Your task to perform on an android device: open app "Grab" Image 0: 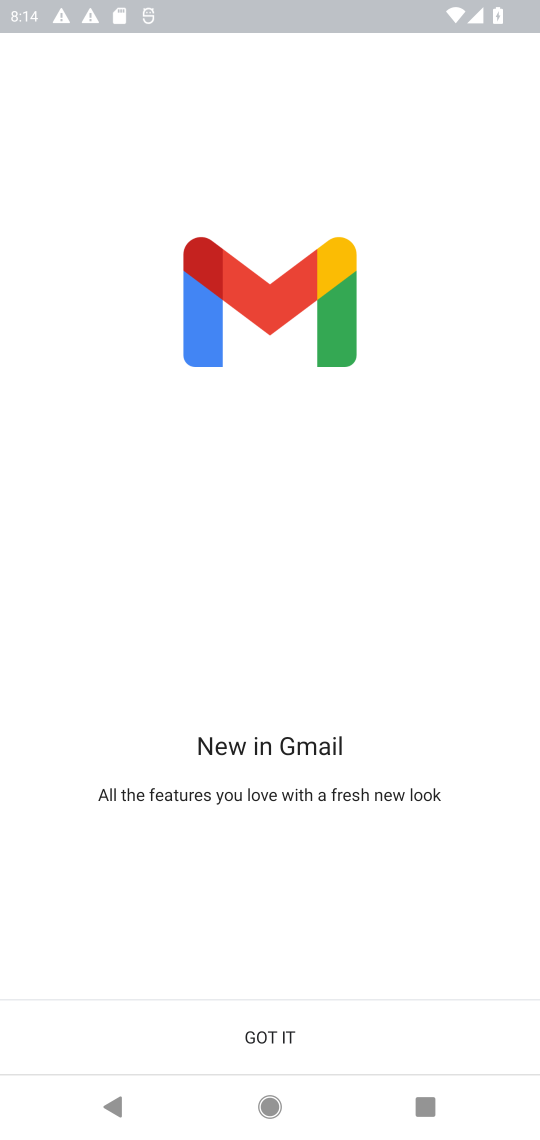
Step 0: press home button
Your task to perform on an android device: open app "Grab" Image 1: 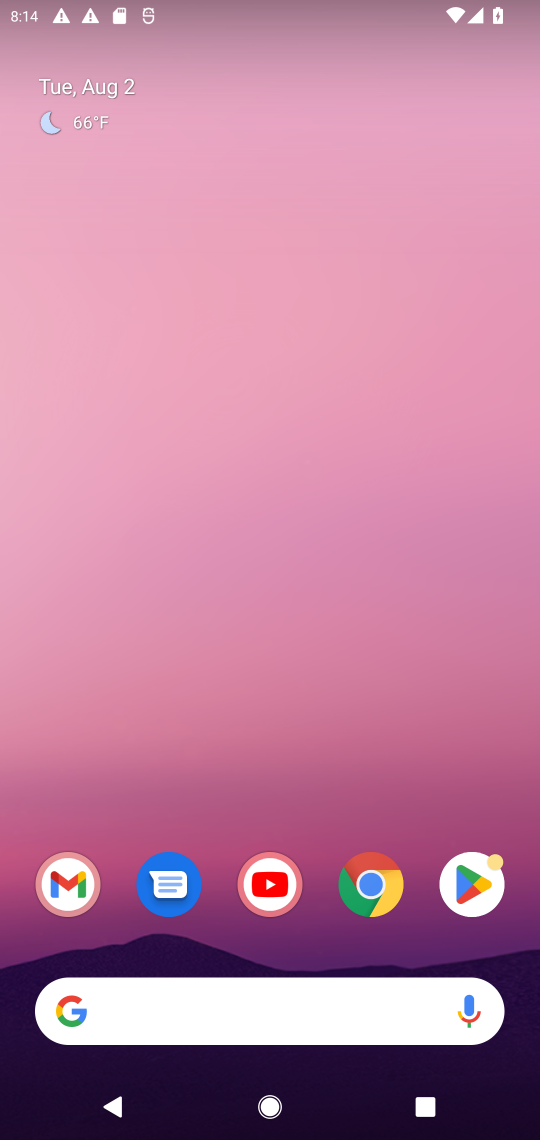
Step 1: click (474, 866)
Your task to perform on an android device: open app "Grab" Image 2: 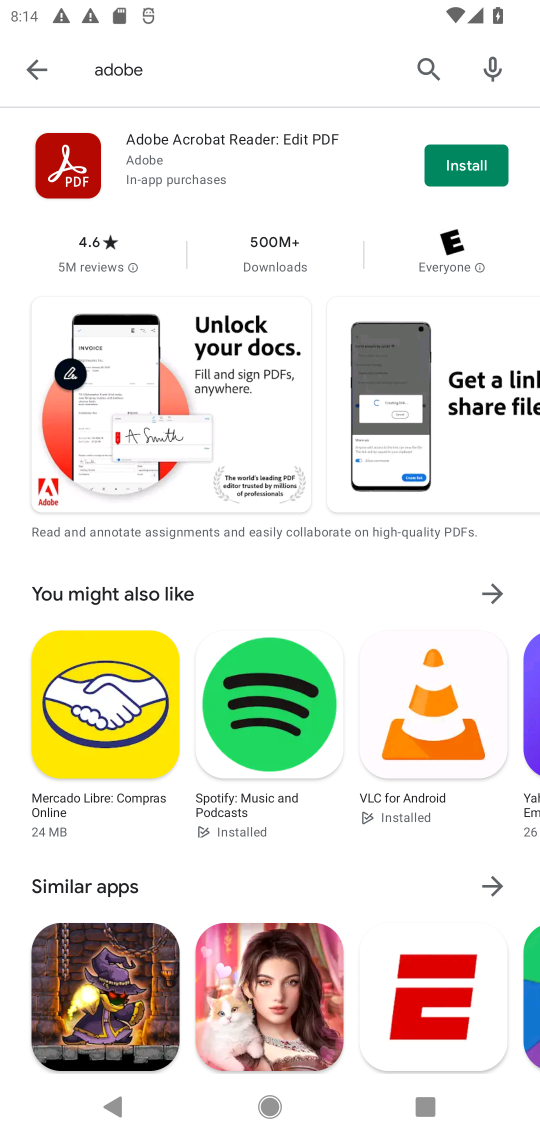
Step 2: click (423, 76)
Your task to perform on an android device: open app "Grab" Image 3: 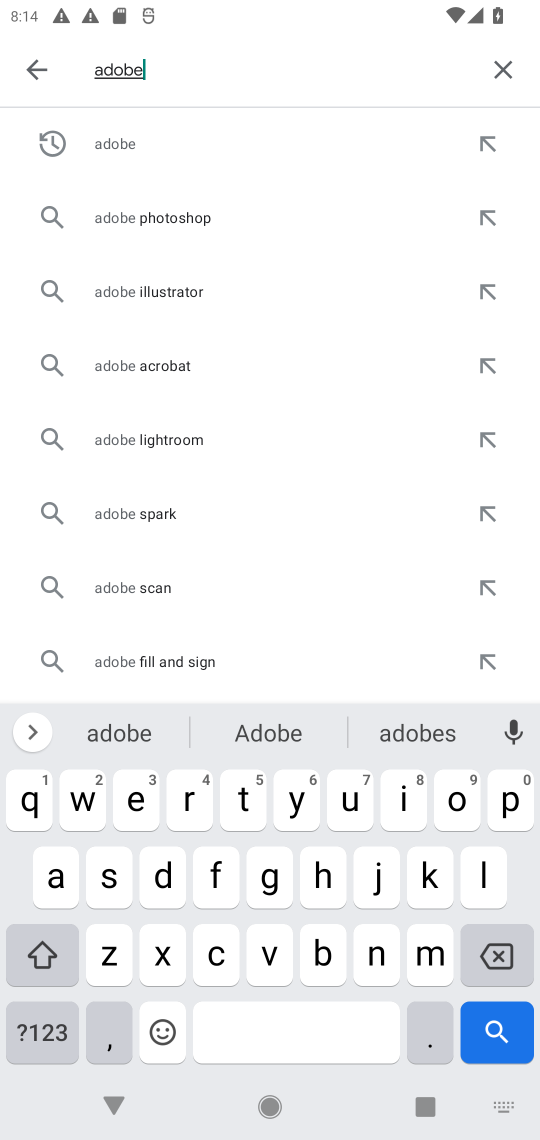
Step 3: click (507, 60)
Your task to perform on an android device: open app "Grab" Image 4: 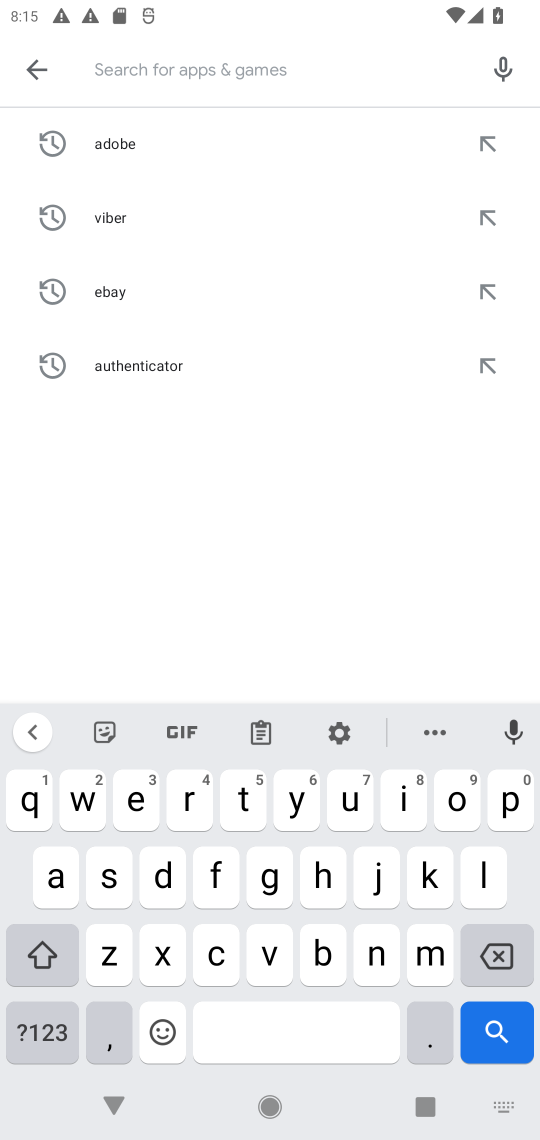
Step 4: click (267, 870)
Your task to perform on an android device: open app "Grab" Image 5: 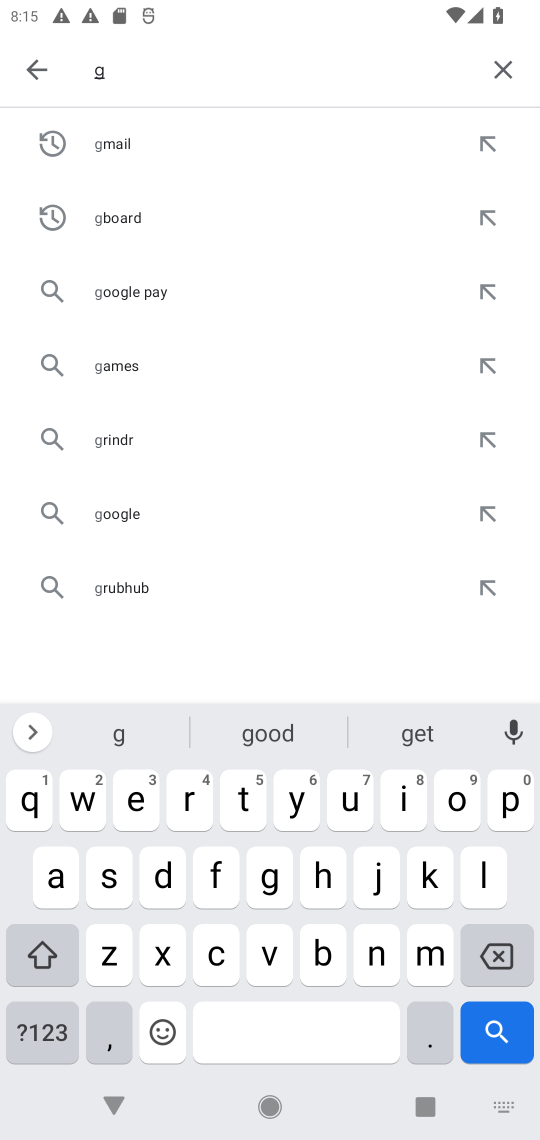
Step 5: click (184, 791)
Your task to perform on an android device: open app "Grab" Image 6: 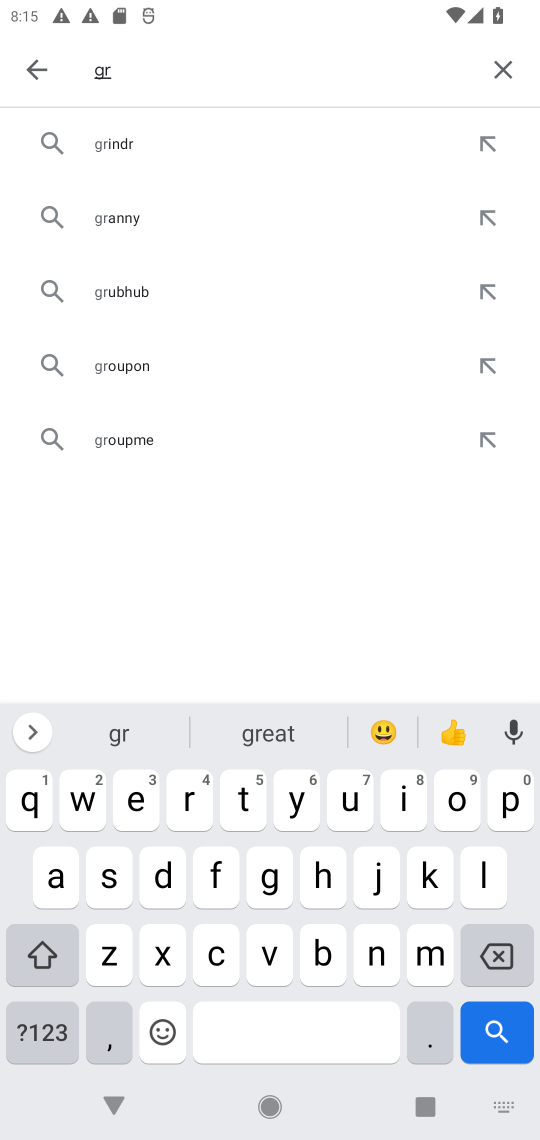
Step 6: click (49, 879)
Your task to perform on an android device: open app "Grab" Image 7: 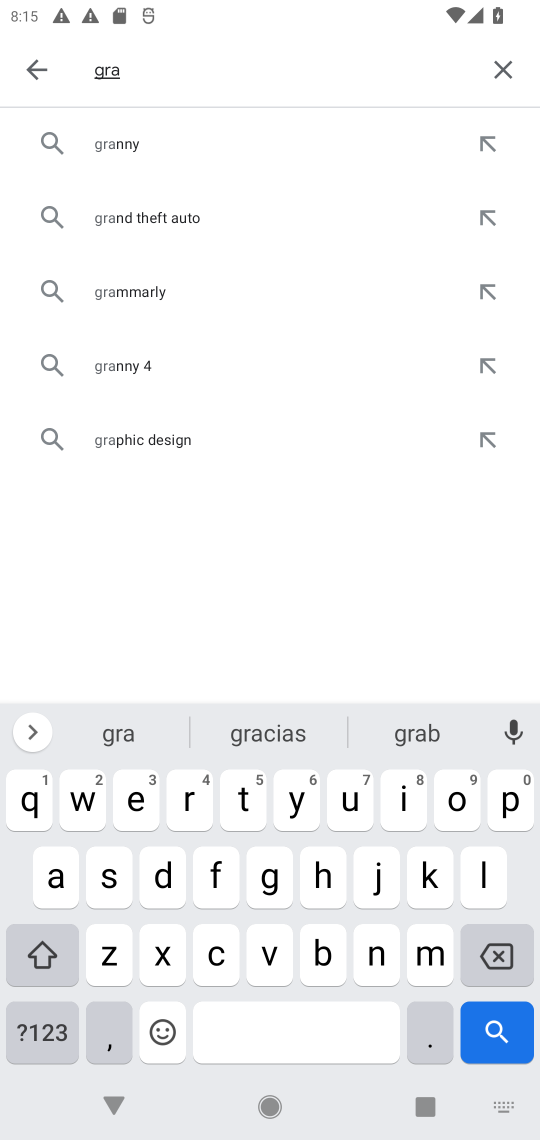
Step 7: click (329, 958)
Your task to perform on an android device: open app "Grab" Image 8: 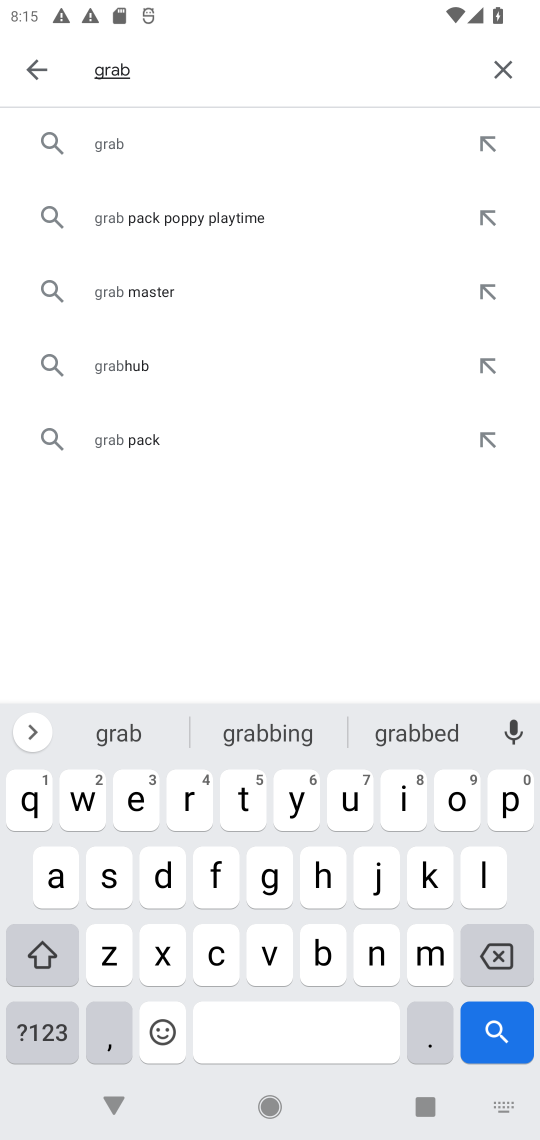
Step 8: click (159, 144)
Your task to perform on an android device: open app "Grab" Image 9: 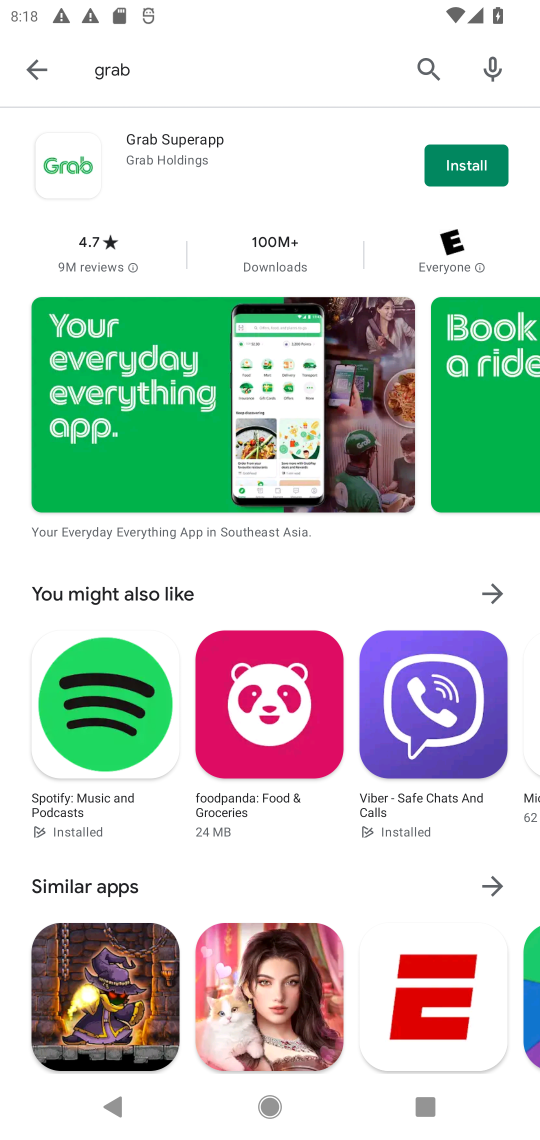
Step 9: task complete